Your task to perform on an android device: move an email to a new category in the gmail app Image 0: 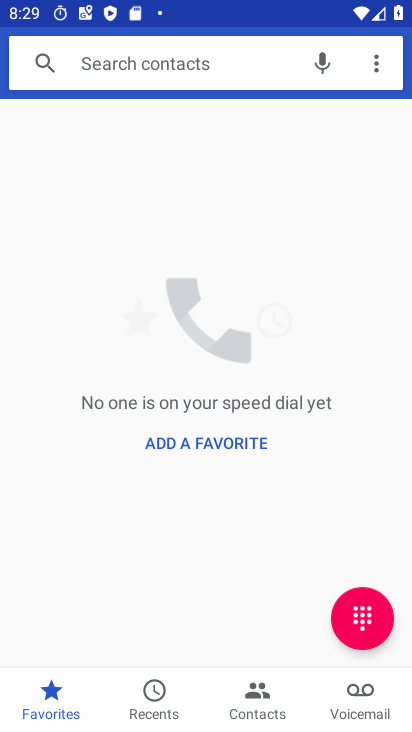
Step 0: press back button
Your task to perform on an android device: move an email to a new category in the gmail app Image 1: 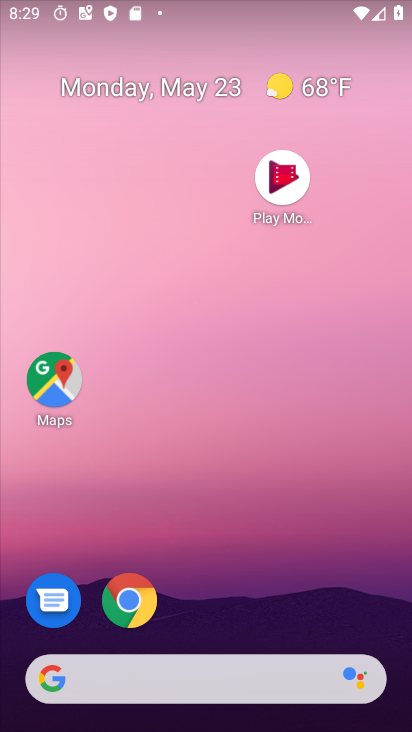
Step 1: drag from (286, 658) to (261, 125)
Your task to perform on an android device: move an email to a new category in the gmail app Image 2: 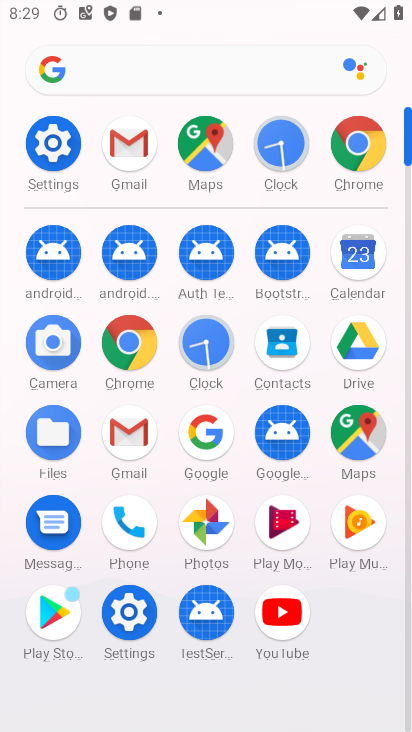
Step 2: click (129, 437)
Your task to perform on an android device: move an email to a new category in the gmail app Image 3: 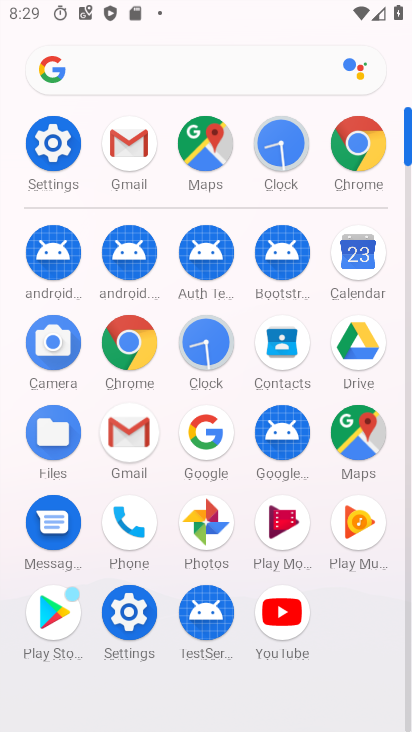
Step 3: click (131, 432)
Your task to perform on an android device: move an email to a new category in the gmail app Image 4: 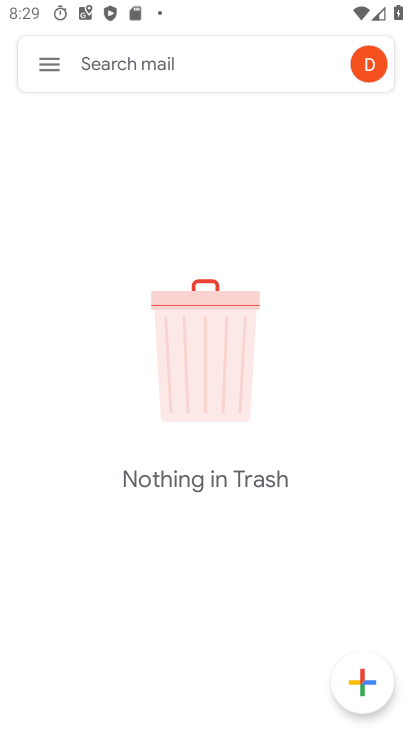
Step 4: click (51, 66)
Your task to perform on an android device: move an email to a new category in the gmail app Image 5: 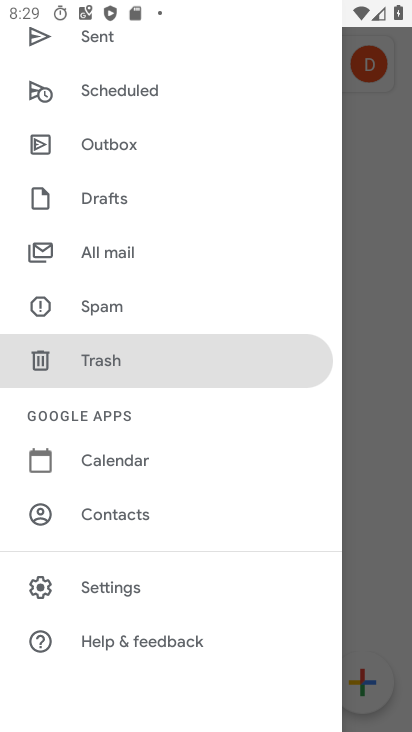
Step 5: click (103, 252)
Your task to perform on an android device: move an email to a new category in the gmail app Image 6: 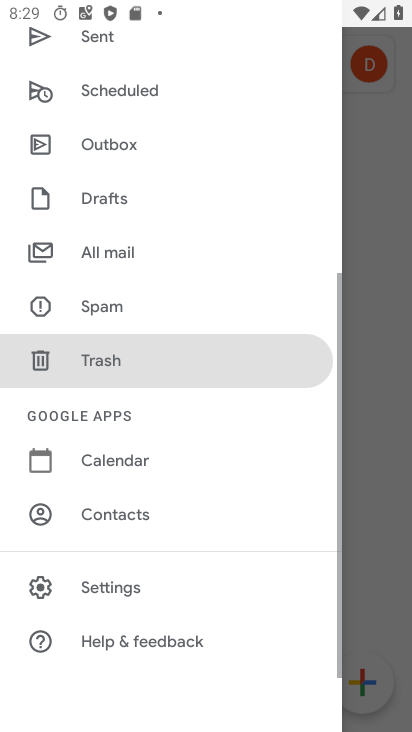
Step 6: click (103, 252)
Your task to perform on an android device: move an email to a new category in the gmail app Image 7: 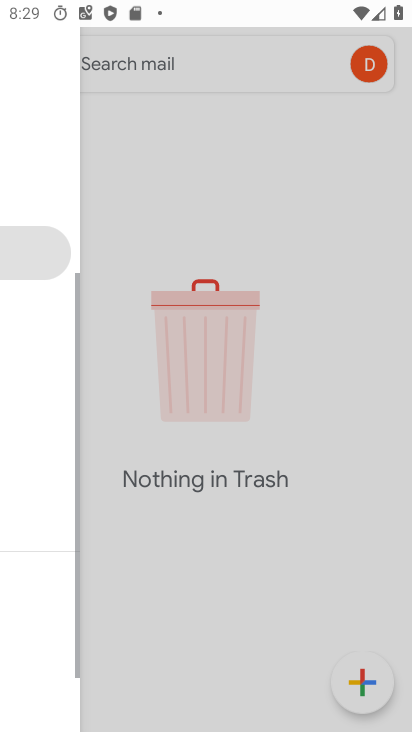
Step 7: click (103, 252)
Your task to perform on an android device: move an email to a new category in the gmail app Image 8: 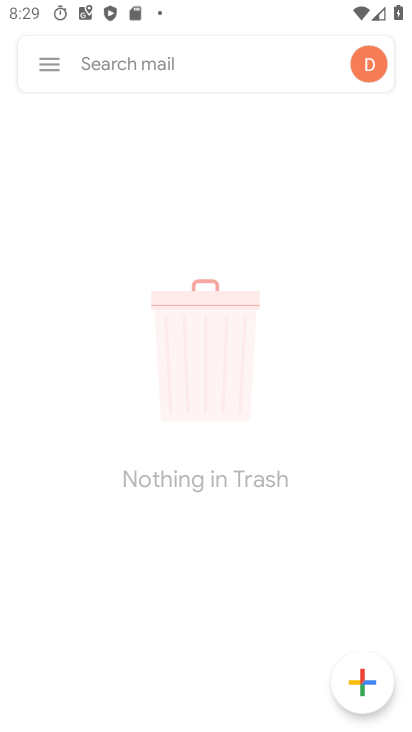
Step 8: click (103, 252)
Your task to perform on an android device: move an email to a new category in the gmail app Image 9: 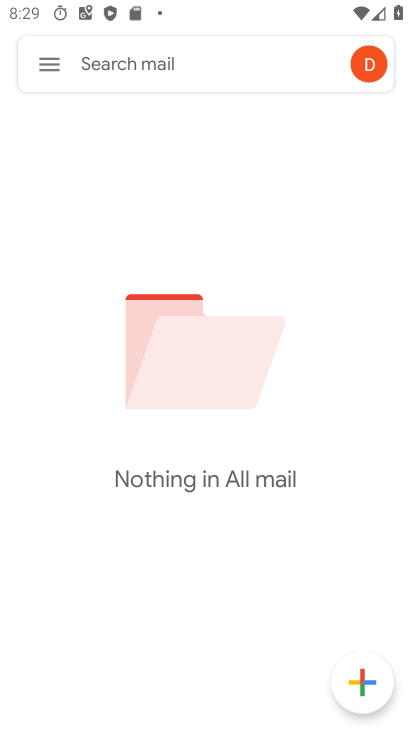
Step 9: task complete